Your task to perform on an android device: move an email to a new category in the gmail app Image 0: 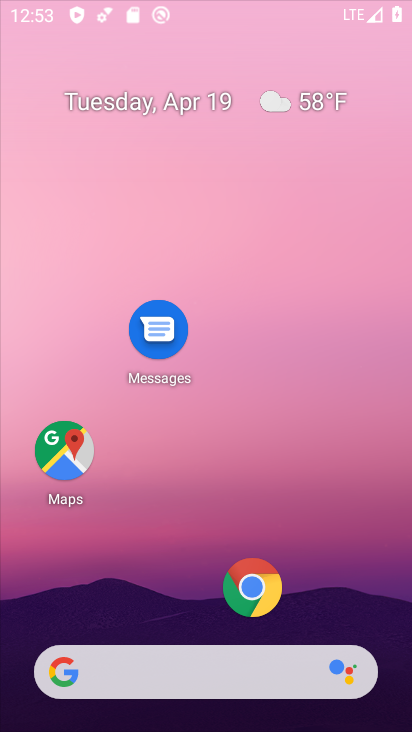
Step 0: click (192, 178)
Your task to perform on an android device: move an email to a new category in the gmail app Image 1: 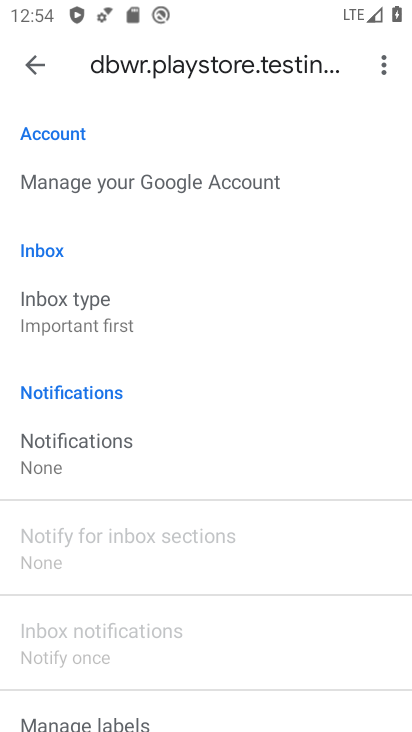
Step 1: task complete